Your task to perform on an android device: Is it going to rain today? Image 0: 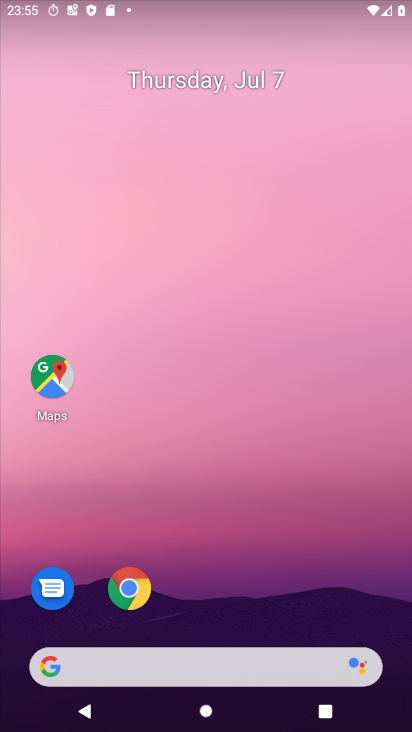
Step 0: drag from (215, 602) to (256, 213)
Your task to perform on an android device: Is it going to rain today? Image 1: 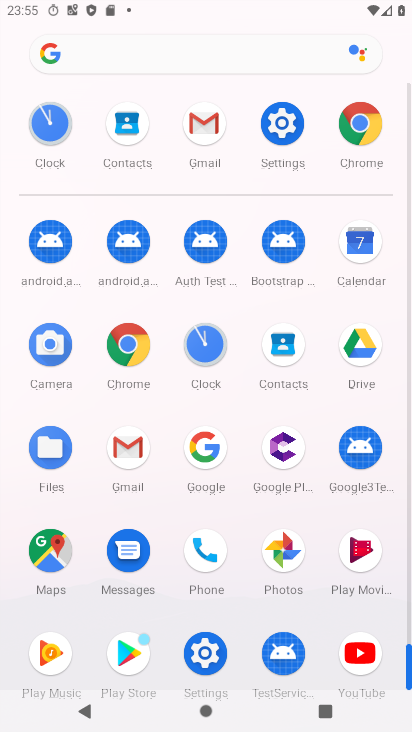
Step 1: drag from (166, 633) to (162, 301)
Your task to perform on an android device: Is it going to rain today? Image 2: 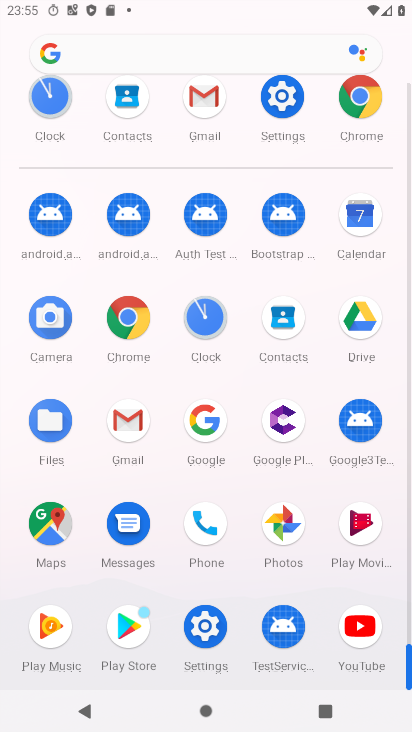
Step 2: click (205, 111)
Your task to perform on an android device: Is it going to rain today? Image 3: 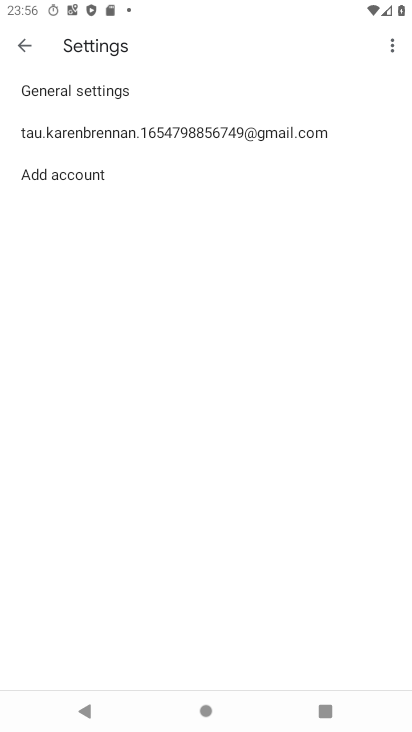
Step 3: drag from (237, 552) to (363, 311)
Your task to perform on an android device: Is it going to rain today? Image 4: 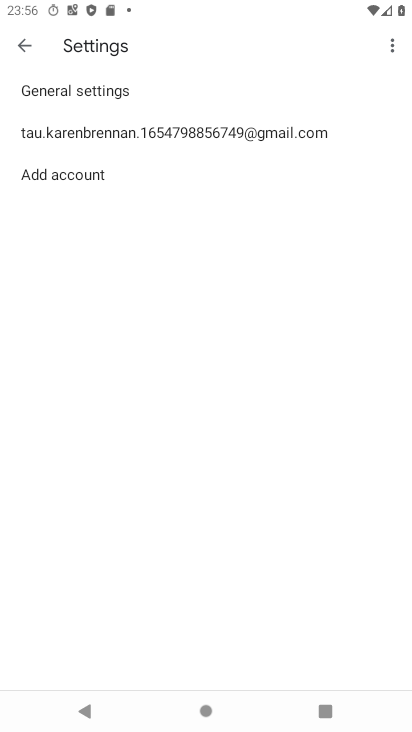
Step 4: press home button
Your task to perform on an android device: Is it going to rain today? Image 5: 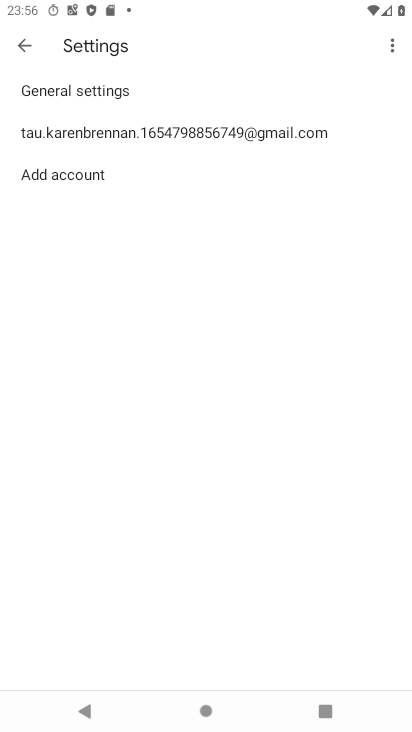
Step 5: press home button
Your task to perform on an android device: Is it going to rain today? Image 6: 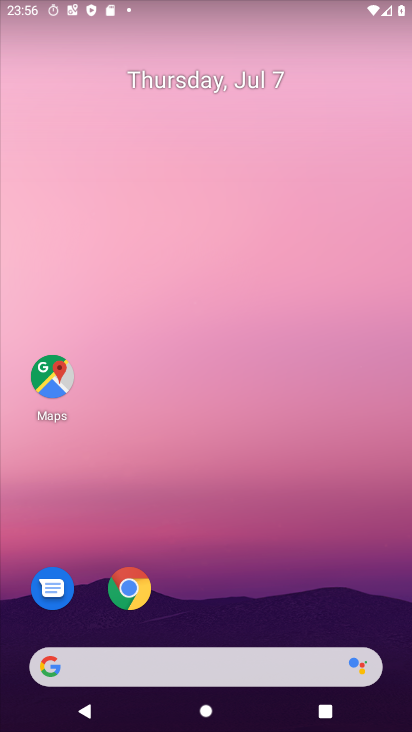
Step 6: drag from (229, 613) to (222, 403)
Your task to perform on an android device: Is it going to rain today? Image 7: 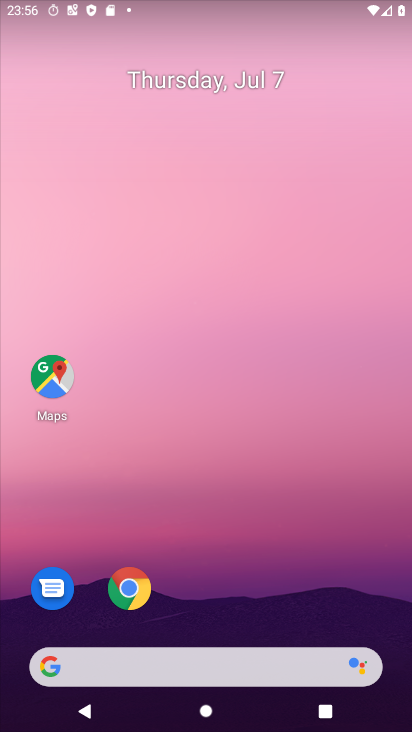
Step 7: drag from (199, 597) to (219, 334)
Your task to perform on an android device: Is it going to rain today? Image 8: 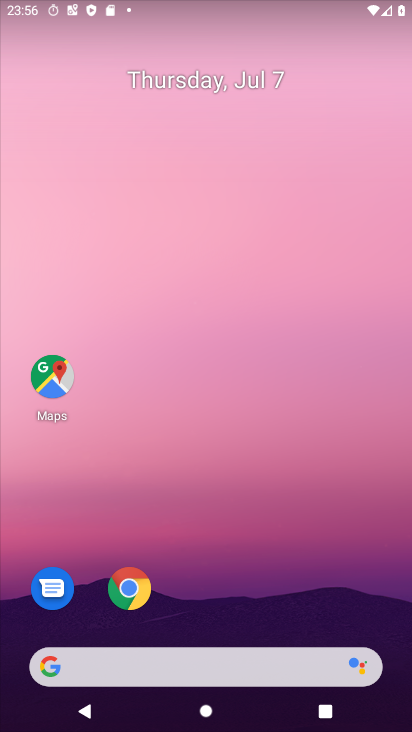
Step 8: drag from (188, 628) to (256, 98)
Your task to perform on an android device: Is it going to rain today? Image 9: 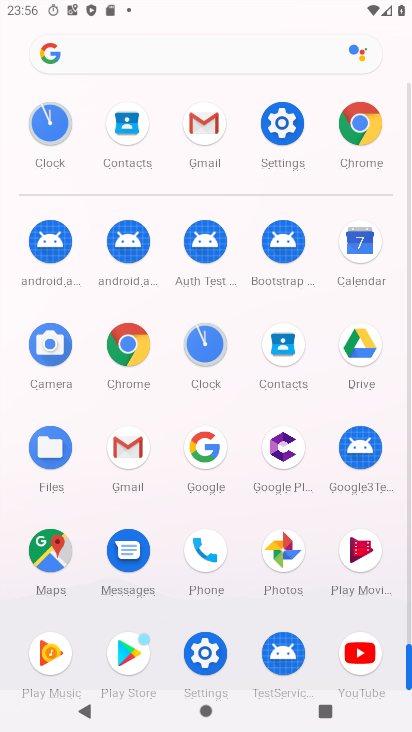
Step 9: click (197, 335)
Your task to perform on an android device: Is it going to rain today? Image 10: 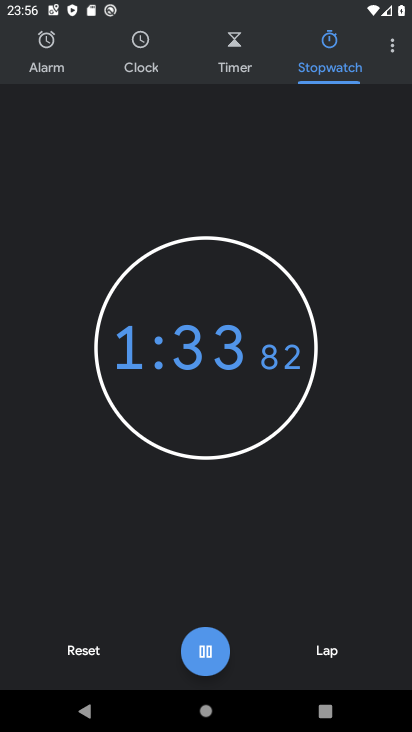
Step 10: click (96, 648)
Your task to perform on an android device: Is it going to rain today? Image 11: 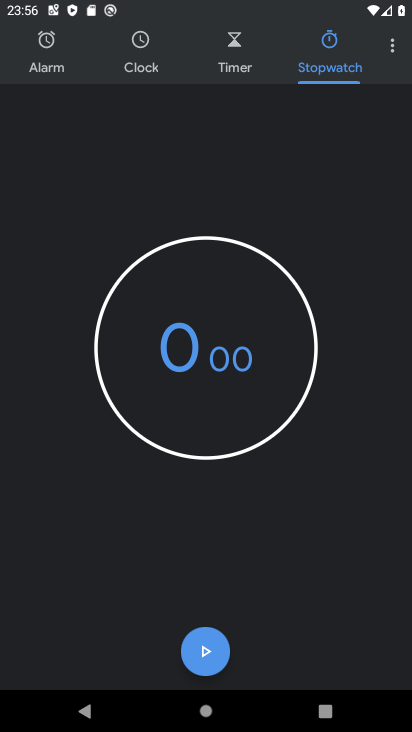
Step 11: drag from (222, 548) to (249, 347)
Your task to perform on an android device: Is it going to rain today? Image 12: 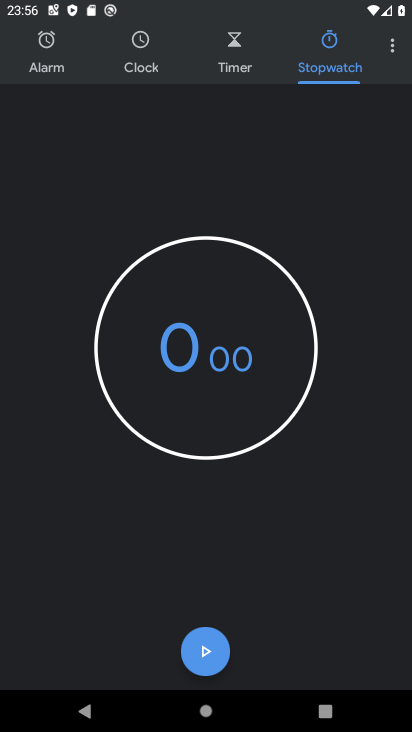
Step 12: press home button
Your task to perform on an android device: Is it going to rain today? Image 13: 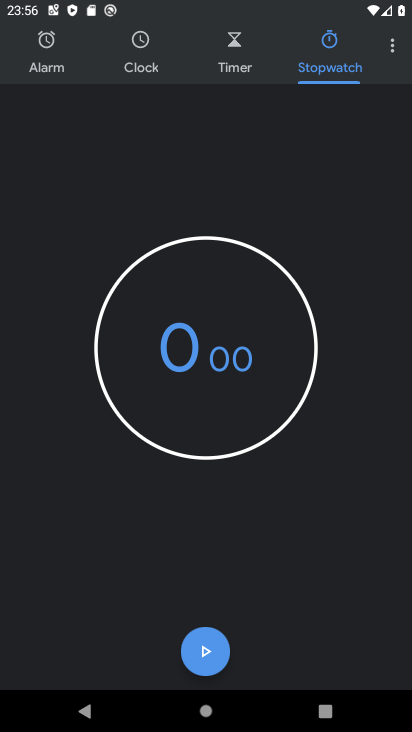
Step 13: drag from (183, 598) to (270, 92)
Your task to perform on an android device: Is it going to rain today? Image 14: 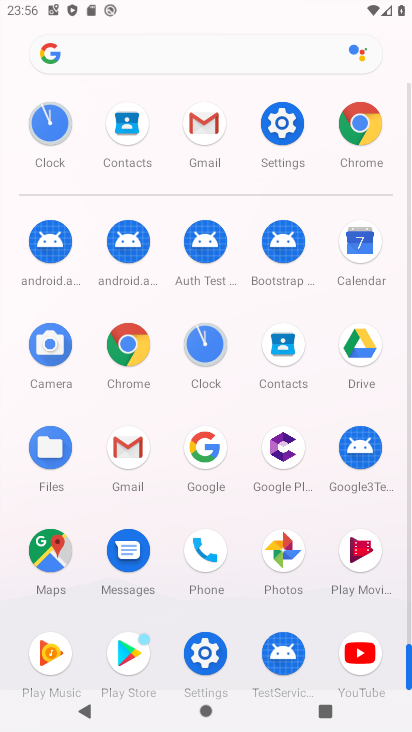
Step 14: click (173, 57)
Your task to perform on an android device: Is it going to rain today? Image 15: 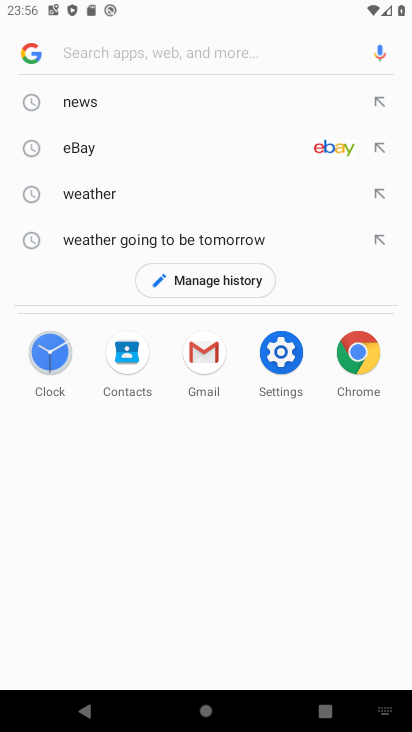
Step 15: type "rain today"
Your task to perform on an android device: Is it going to rain today? Image 16: 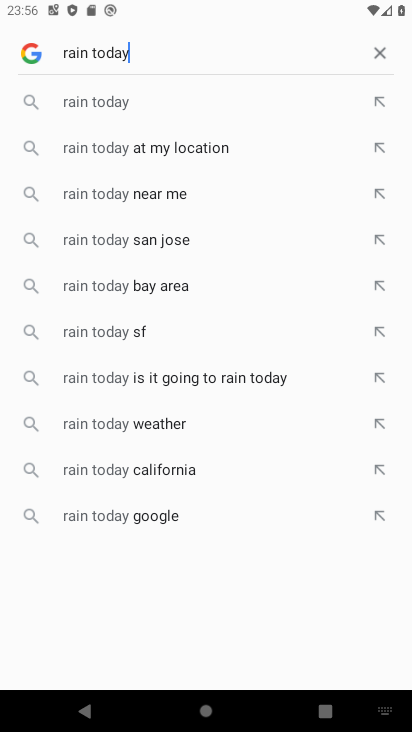
Step 16: click (99, 104)
Your task to perform on an android device: Is it going to rain today? Image 17: 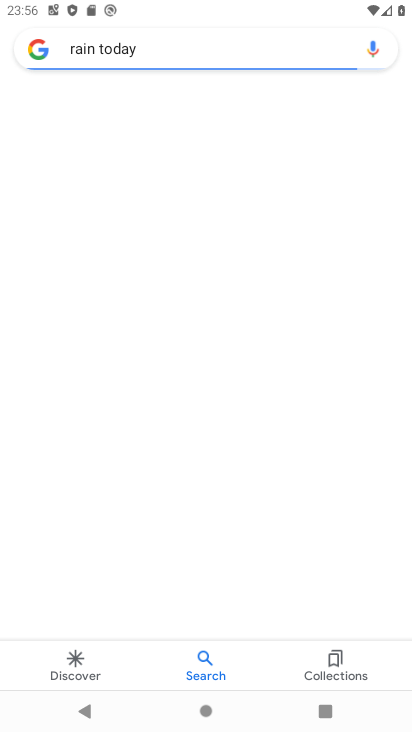
Step 17: task complete